Your task to perform on an android device: turn off improve location accuracy Image 0: 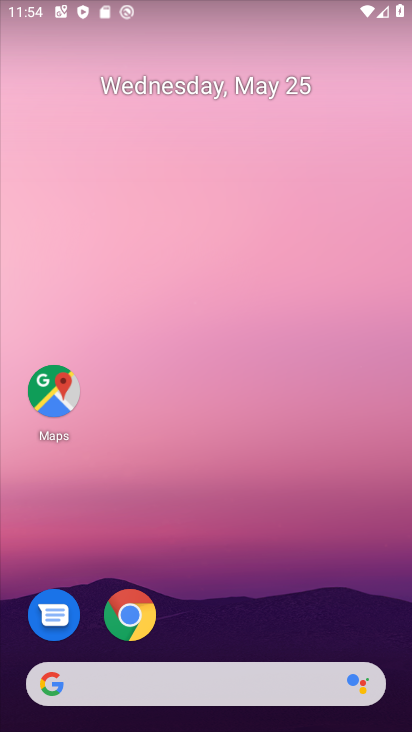
Step 0: drag from (278, 619) to (193, 145)
Your task to perform on an android device: turn off improve location accuracy Image 1: 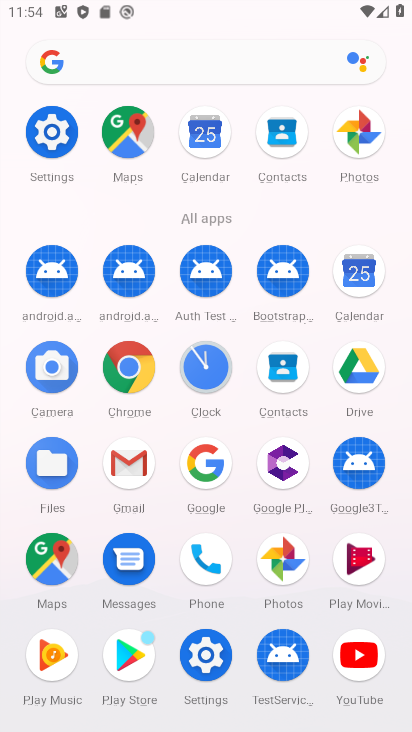
Step 1: click (57, 141)
Your task to perform on an android device: turn off improve location accuracy Image 2: 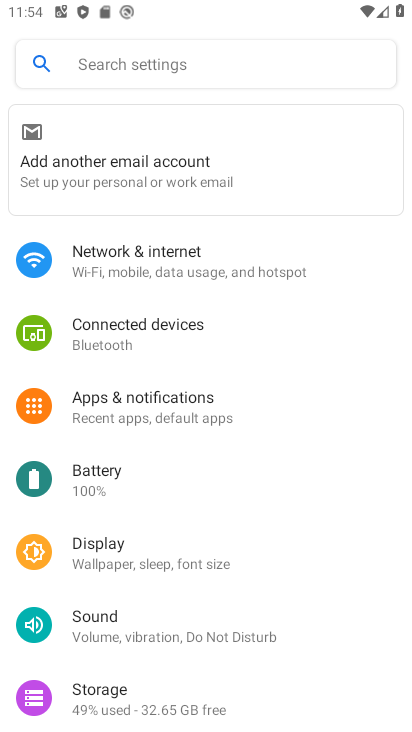
Step 2: drag from (179, 664) to (135, 216)
Your task to perform on an android device: turn off improve location accuracy Image 3: 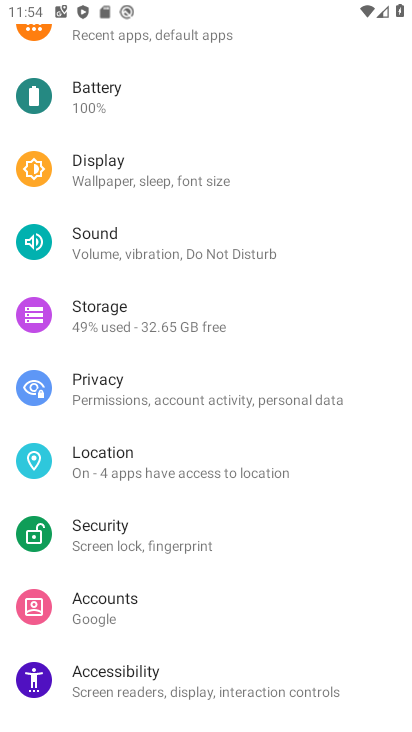
Step 3: click (171, 469)
Your task to perform on an android device: turn off improve location accuracy Image 4: 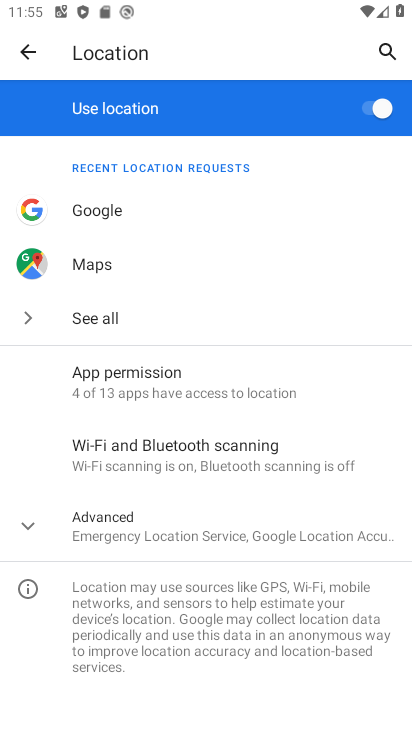
Step 4: click (301, 535)
Your task to perform on an android device: turn off improve location accuracy Image 5: 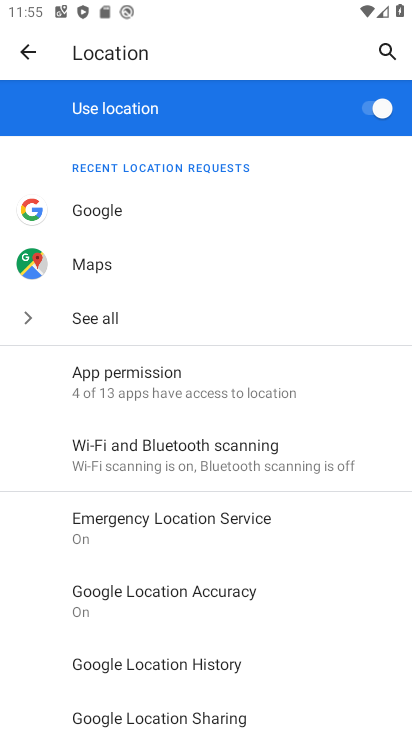
Step 5: click (256, 594)
Your task to perform on an android device: turn off improve location accuracy Image 6: 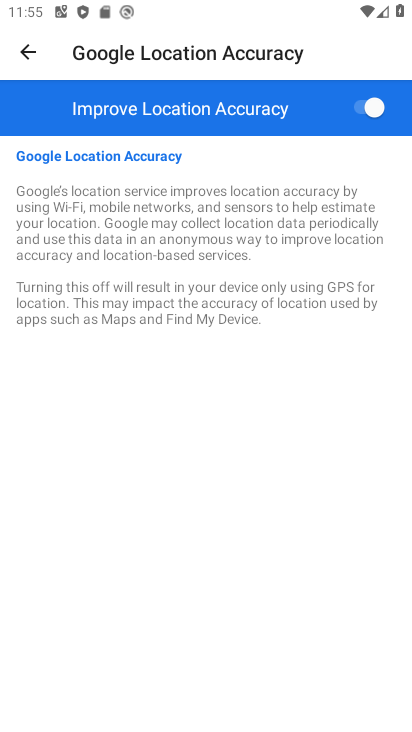
Step 6: click (368, 110)
Your task to perform on an android device: turn off improve location accuracy Image 7: 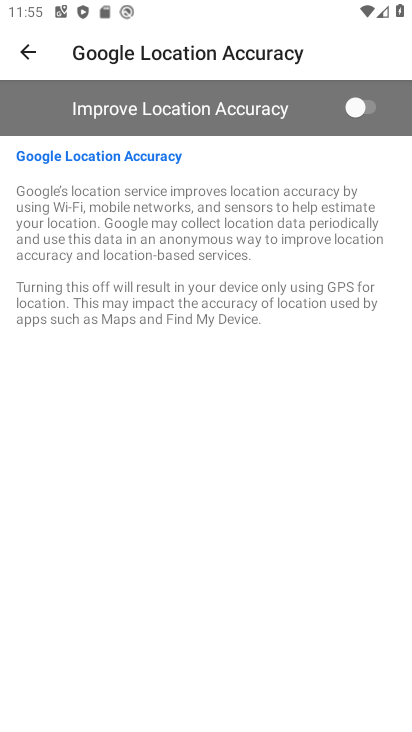
Step 7: task complete